Your task to perform on an android device: change keyboard looks Image 0: 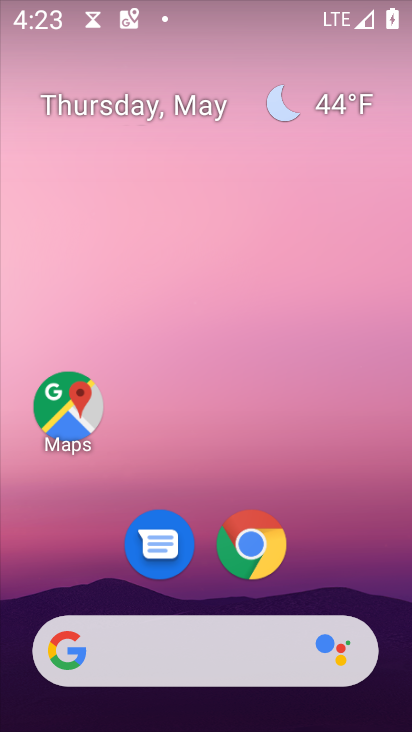
Step 0: drag from (348, 576) to (347, 69)
Your task to perform on an android device: change keyboard looks Image 1: 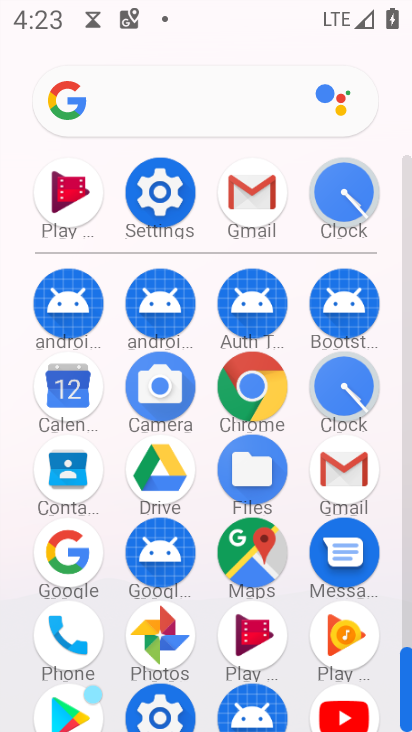
Step 1: click (153, 208)
Your task to perform on an android device: change keyboard looks Image 2: 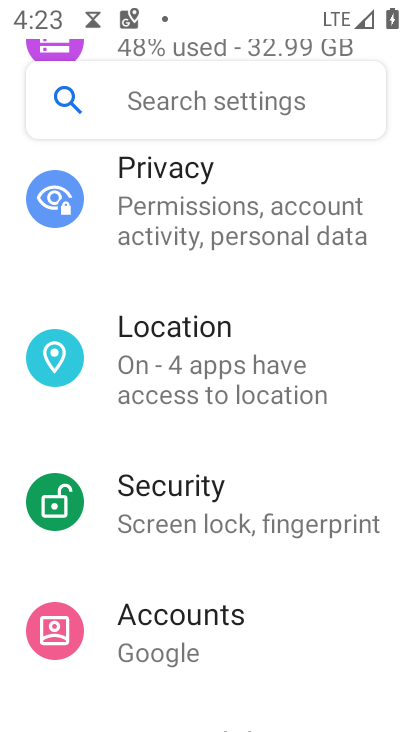
Step 2: drag from (178, 436) to (185, 259)
Your task to perform on an android device: change keyboard looks Image 3: 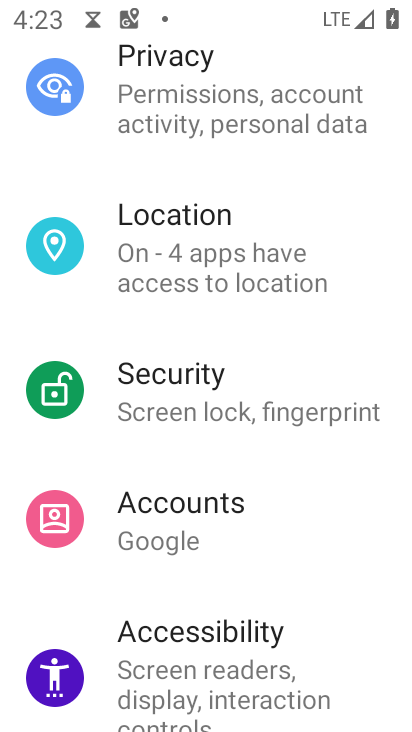
Step 3: drag from (131, 591) to (128, 320)
Your task to perform on an android device: change keyboard looks Image 4: 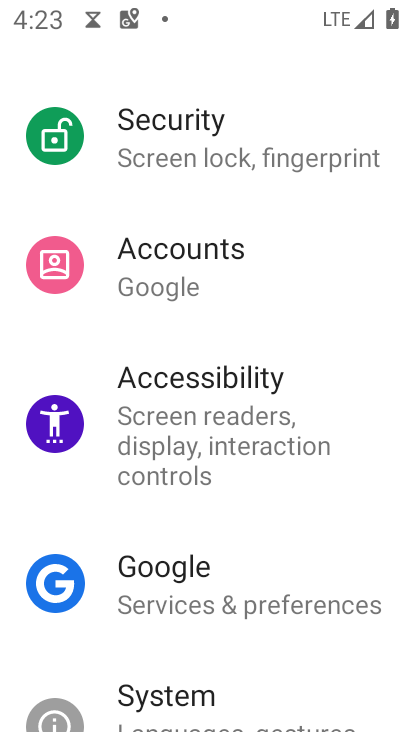
Step 4: drag from (194, 574) to (243, 363)
Your task to perform on an android device: change keyboard looks Image 5: 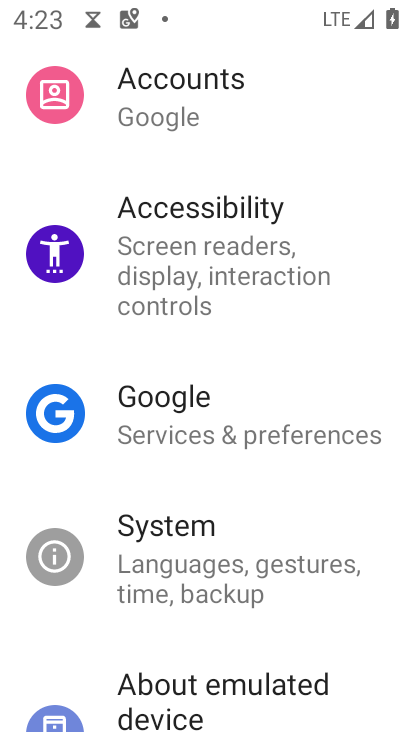
Step 5: click (219, 554)
Your task to perform on an android device: change keyboard looks Image 6: 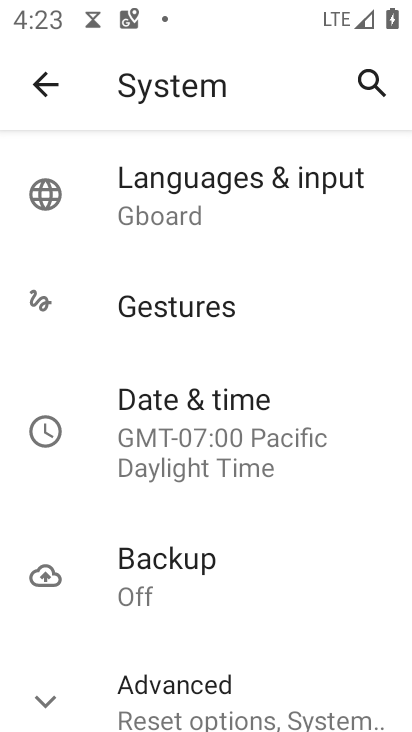
Step 6: click (201, 228)
Your task to perform on an android device: change keyboard looks Image 7: 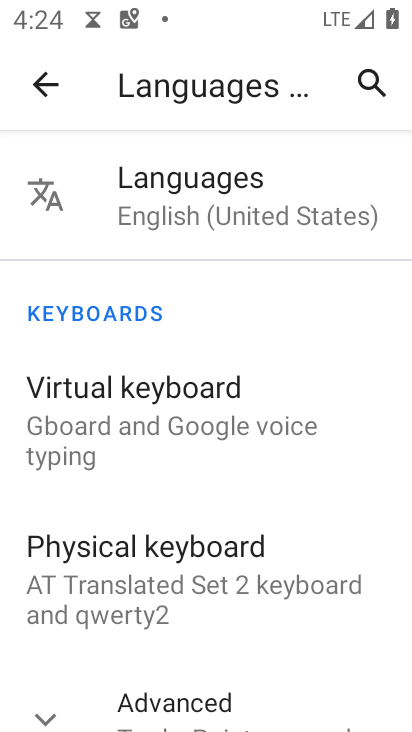
Step 7: click (151, 403)
Your task to perform on an android device: change keyboard looks Image 8: 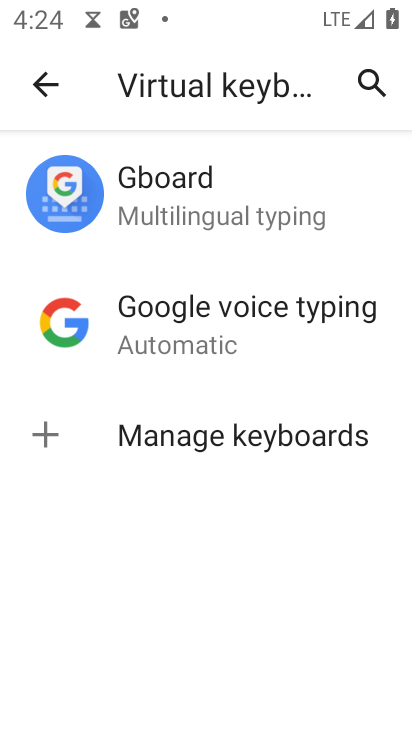
Step 8: click (198, 239)
Your task to perform on an android device: change keyboard looks Image 9: 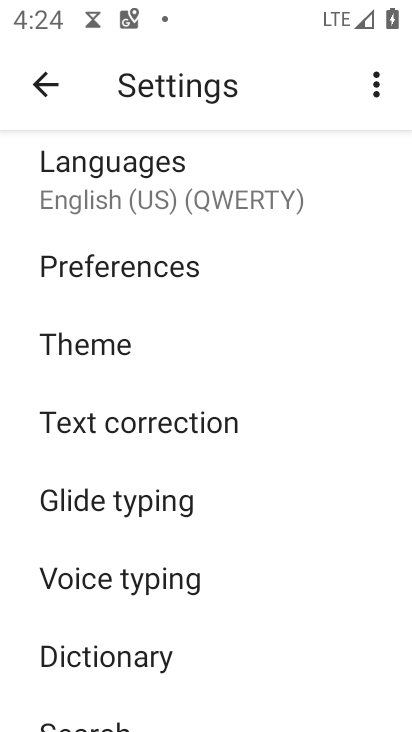
Step 9: click (103, 332)
Your task to perform on an android device: change keyboard looks Image 10: 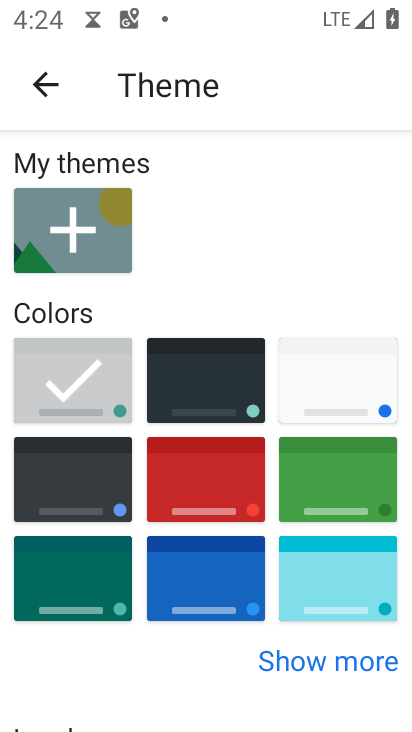
Step 10: click (340, 571)
Your task to perform on an android device: change keyboard looks Image 11: 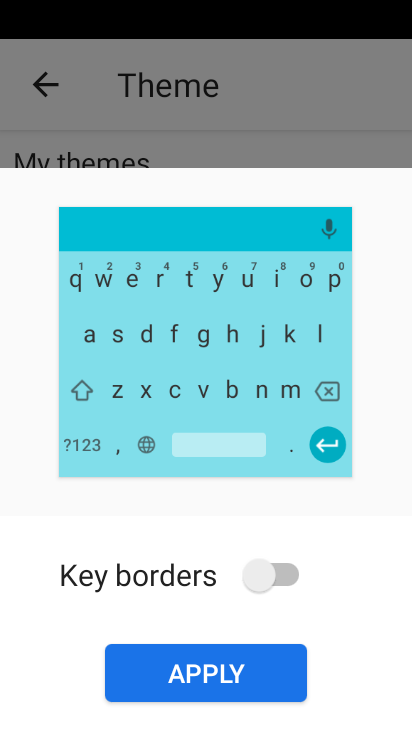
Step 11: click (189, 676)
Your task to perform on an android device: change keyboard looks Image 12: 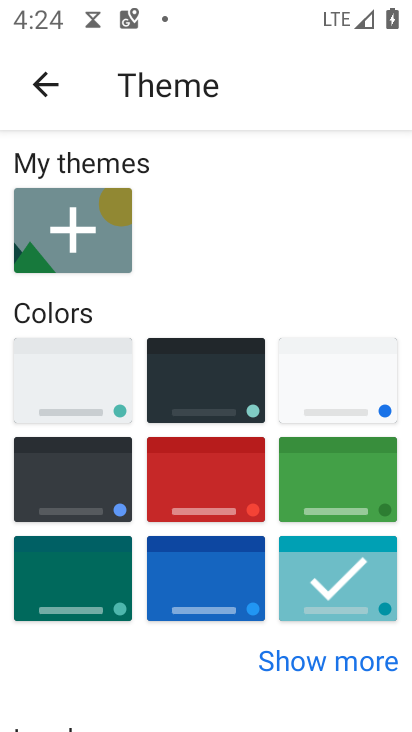
Step 12: task complete